Your task to perform on an android device: change the upload size in google photos Image 0: 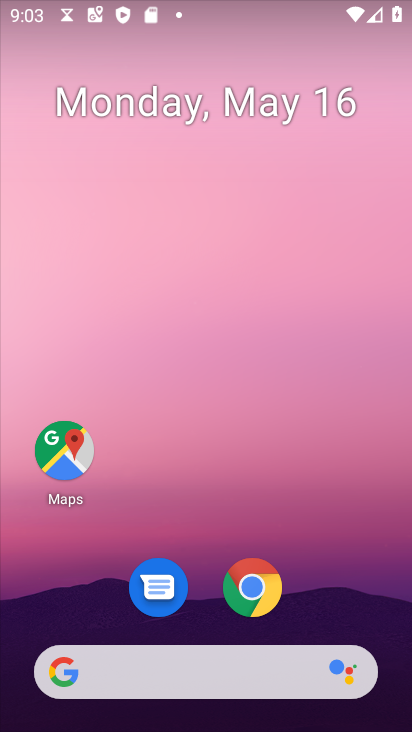
Step 0: drag from (354, 602) to (280, 180)
Your task to perform on an android device: change the upload size in google photos Image 1: 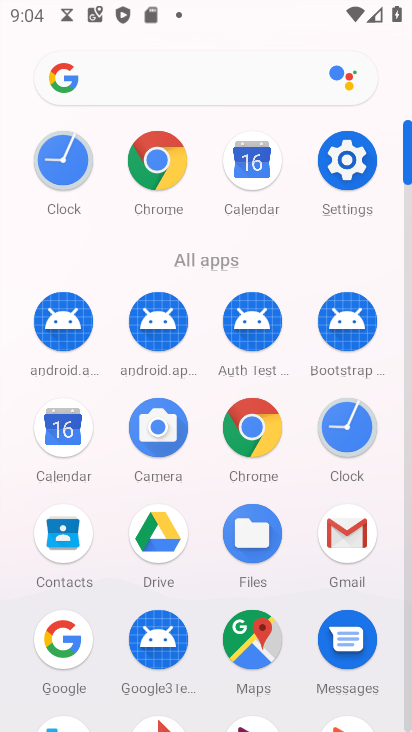
Step 1: click (411, 668)
Your task to perform on an android device: change the upload size in google photos Image 2: 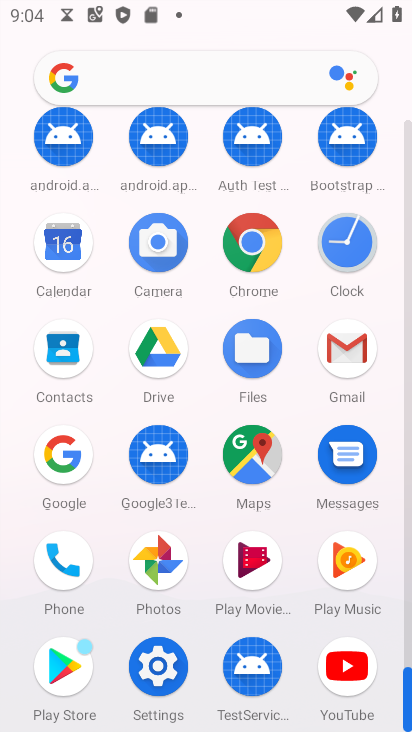
Step 2: click (161, 570)
Your task to perform on an android device: change the upload size in google photos Image 3: 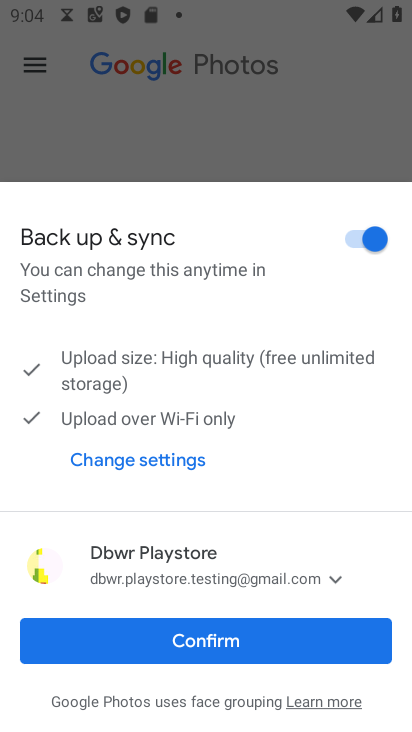
Step 3: click (203, 642)
Your task to perform on an android device: change the upload size in google photos Image 4: 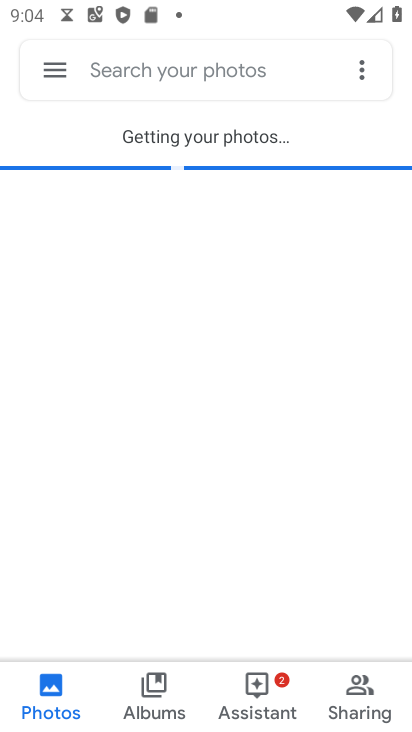
Step 4: click (51, 61)
Your task to perform on an android device: change the upload size in google photos Image 5: 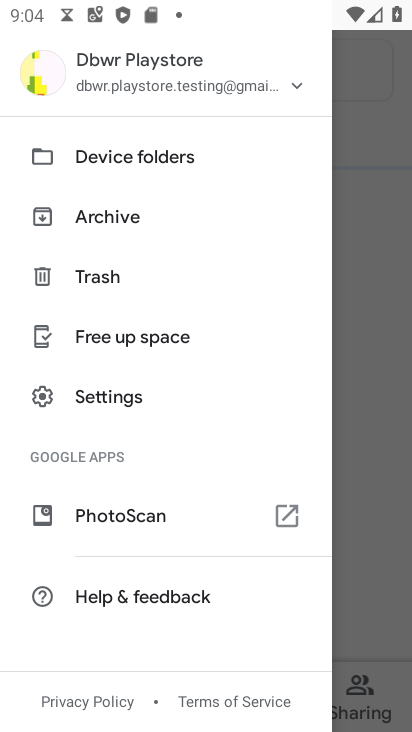
Step 5: click (145, 393)
Your task to perform on an android device: change the upload size in google photos Image 6: 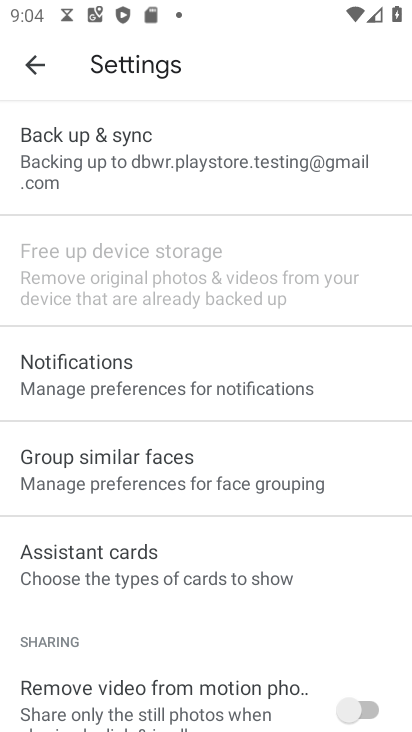
Step 6: click (164, 145)
Your task to perform on an android device: change the upload size in google photos Image 7: 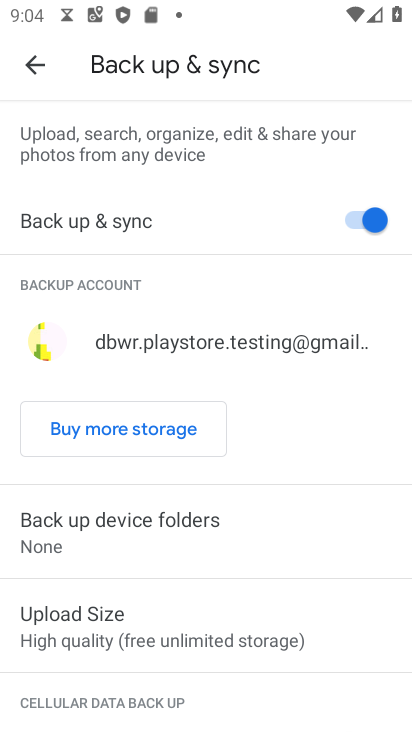
Step 7: click (191, 637)
Your task to perform on an android device: change the upload size in google photos Image 8: 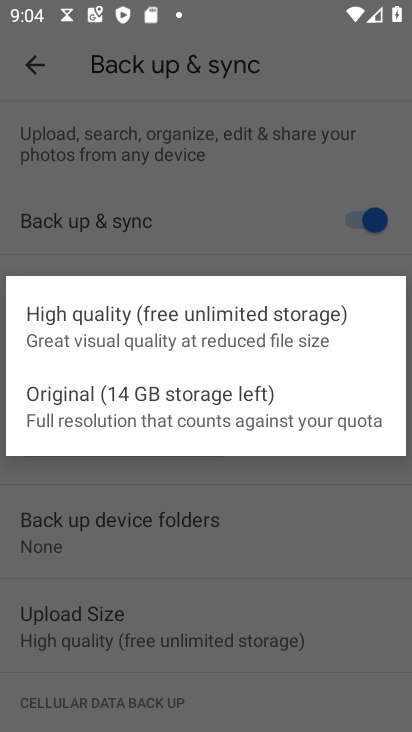
Step 8: click (169, 419)
Your task to perform on an android device: change the upload size in google photos Image 9: 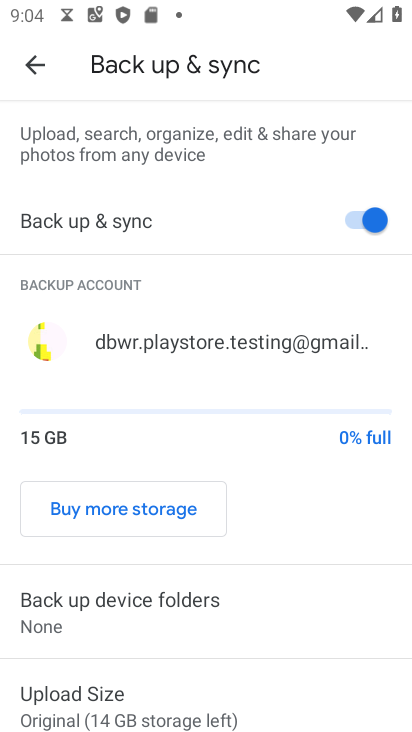
Step 9: task complete